Your task to perform on an android device: Open network settings Image 0: 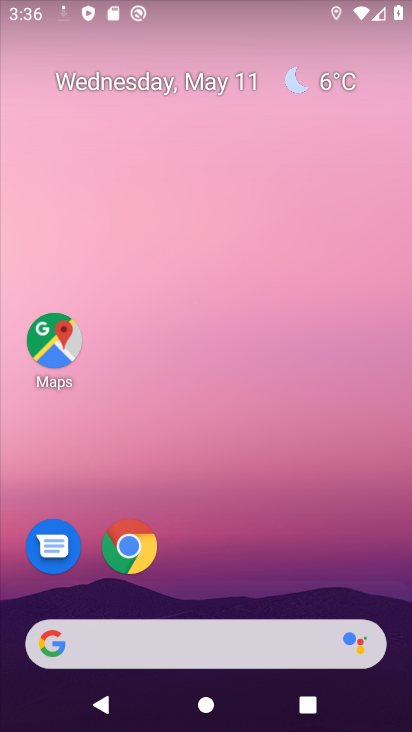
Step 0: drag from (217, 552) to (351, 134)
Your task to perform on an android device: Open network settings Image 1: 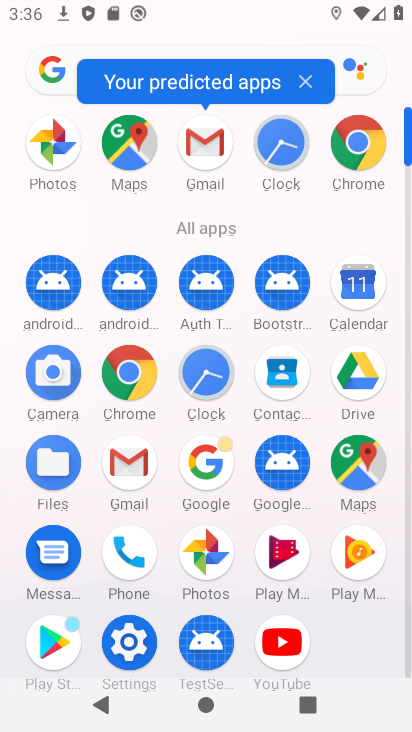
Step 1: click (117, 657)
Your task to perform on an android device: Open network settings Image 2: 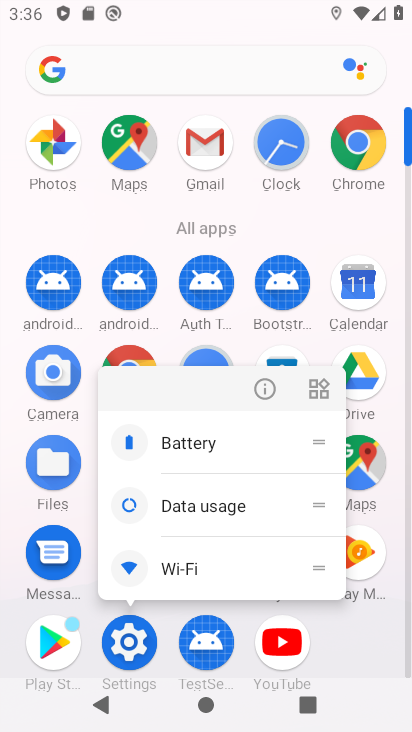
Step 2: click (135, 646)
Your task to perform on an android device: Open network settings Image 3: 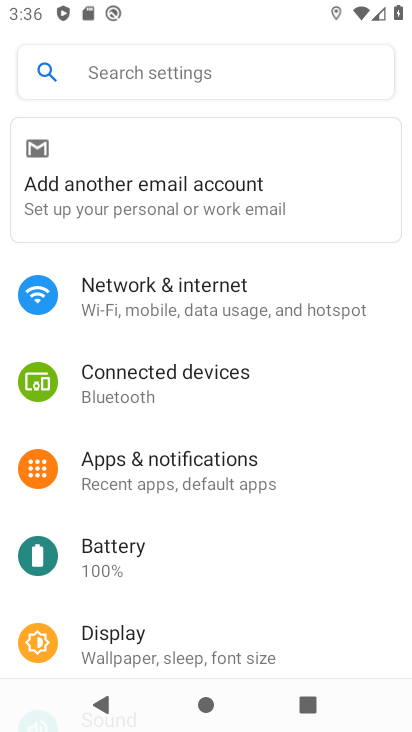
Step 3: click (206, 296)
Your task to perform on an android device: Open network settings Image 4: 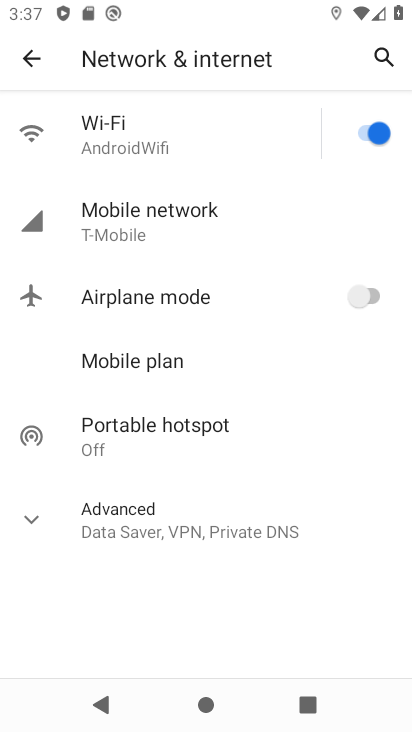
Step 4: click (215, 224)
Your task to perform on an android device: Open network settings Image 5: 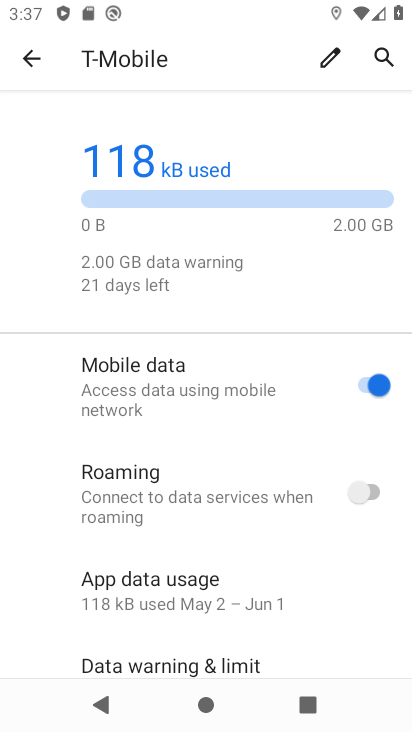
Step 5: task complete